Your task to perform on an android device: Go to Google Image 0: 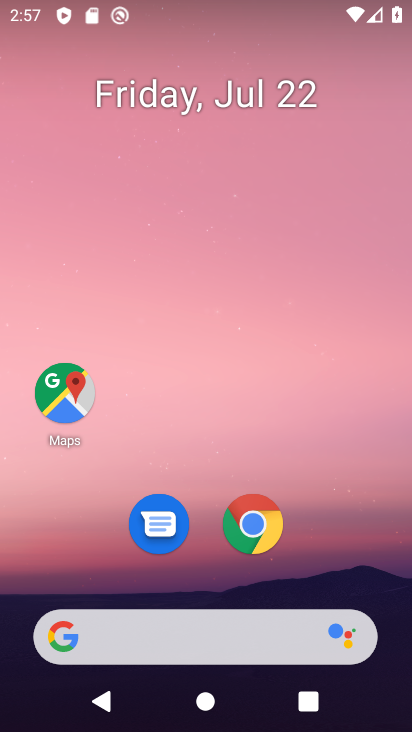
Step 0: drag from (197, 625) to (347, 142)
Your task to perform on an android device: Go to Google Image 1: 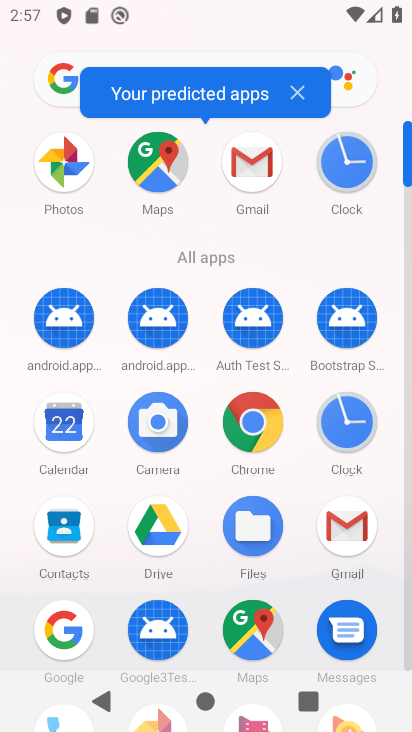
Step 1: click (59, 621)
Your task to perform on an android device: Go to Google Image 2: 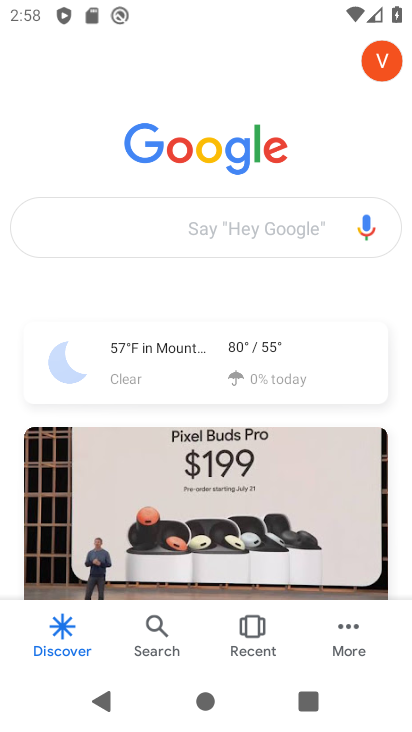
Step 2: task complete